Your task to perform on an android device: turn on location history Image 0: 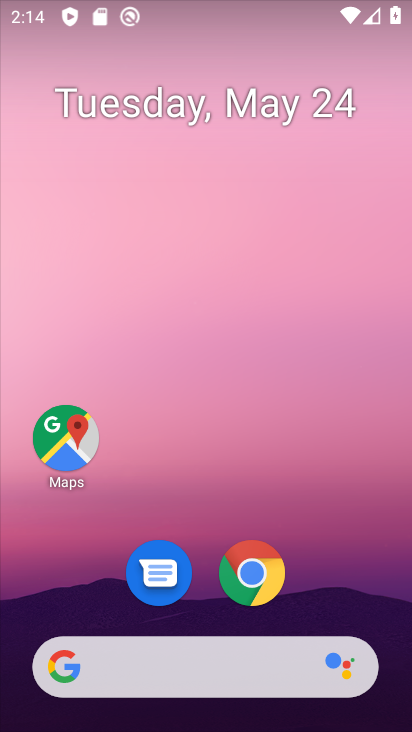
Step 0: drag from (321, 543) to (241, 79)
Your task to perform on an android device: turn on location history Image 1: 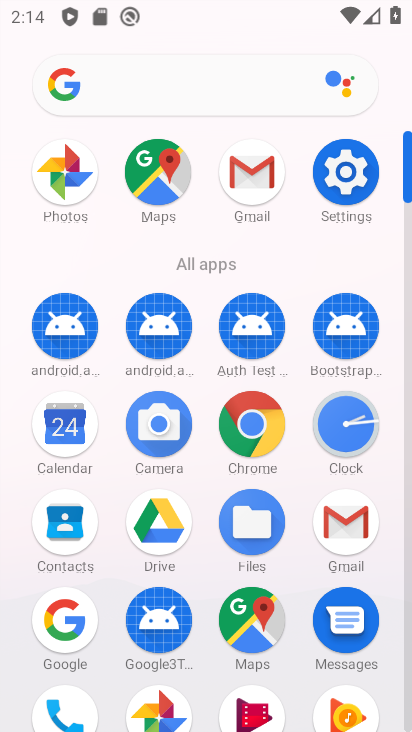
Step 1: drag from (7, 392) to (11, 205)
Your task to perform on an android device: turn on location history Image 2: 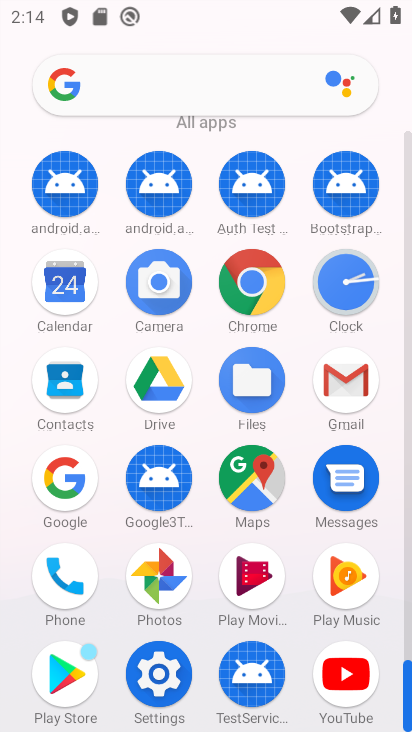
Step 2: click (158, 669)
Your task to perform on an android device: turn on location history Image 3: 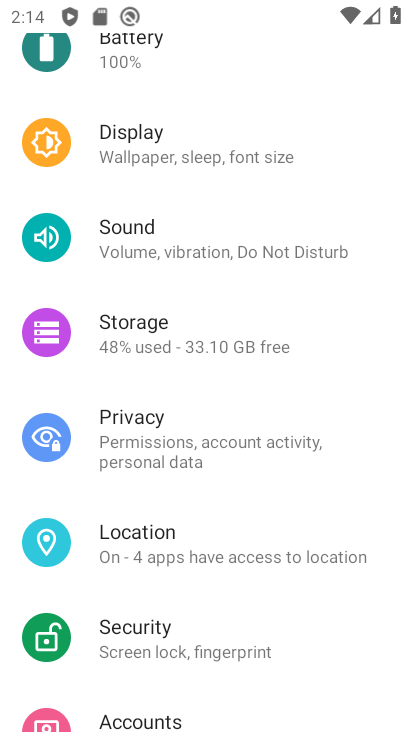
Step 3: drag from (229, 624) to (232, 200)
Your task to perform on an android device: turn on location history Image 4: 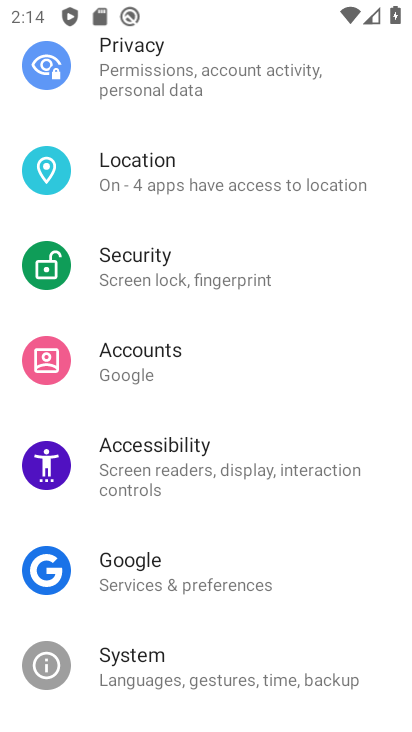
Step 4: click (210, 173)
Your task to perform on an android device: turn on location history Image 5: 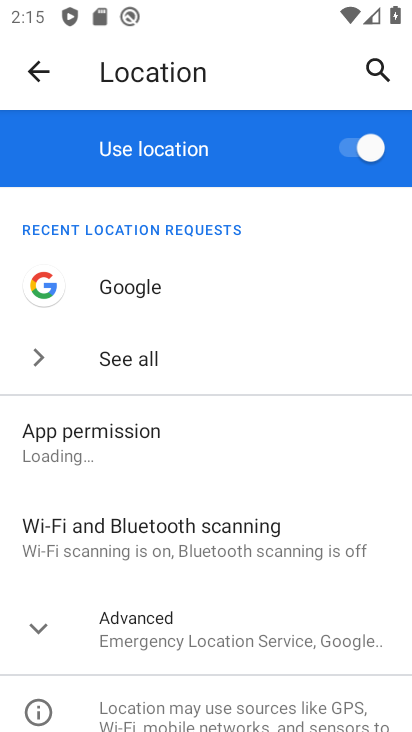
Step 5: click (143, 625)
Your task to perform on an android device: turn on location history Image 6: 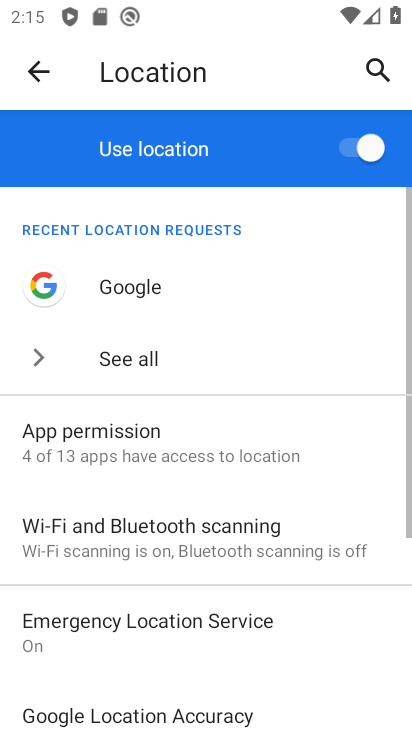
Step 6: drag from (261, 620) to (259, 193)
Your task to perform on an android device: turn on location history Image 7: 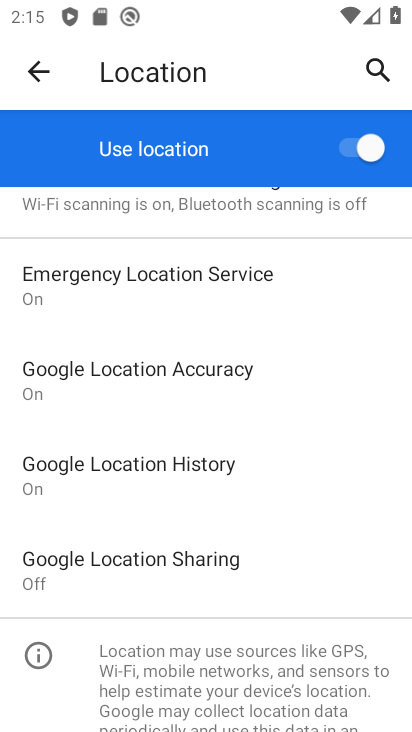
Step 7: click (113, 462)
Your task to perform on an android device: turn on location history Image 8: 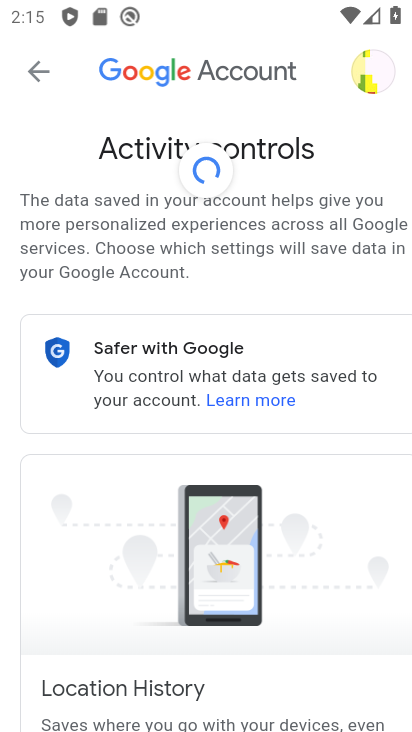
Step 8: task complete